Your task to perform on an android device: Open wifi settings Image 0: 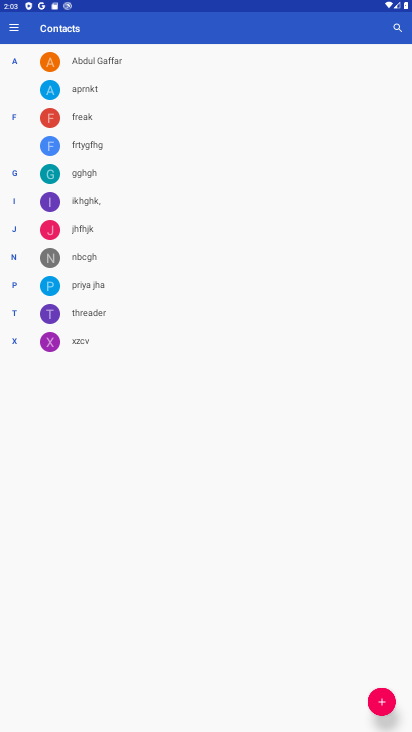
Step 0: press home button
Your task to perform on an android device: Open wifi settings Image 1: 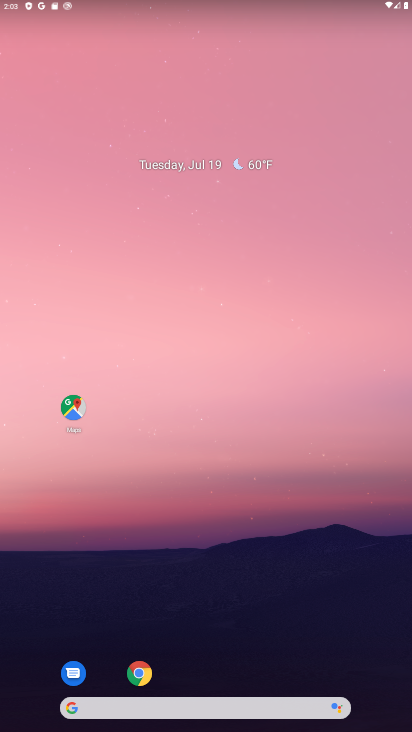
Step 1: drag from (356, 596) to (301, 7)
Your task to perform on an android device: Open wifi settings Image 2: 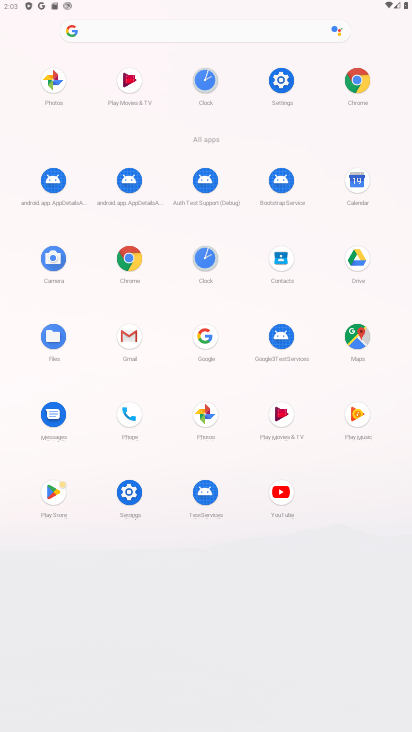
Step 2: click (290, 85)
Your task to perform on an android device: Open wifi settings Image 3: 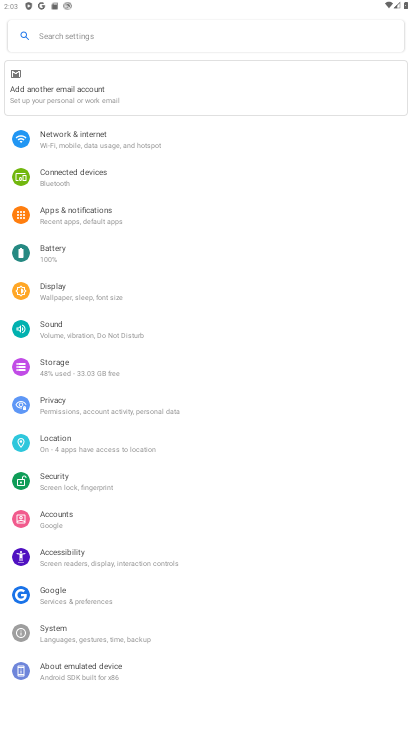
Step 3: click (252, 141)
Your task to perform on an android device: Open wifi settings Image 4: 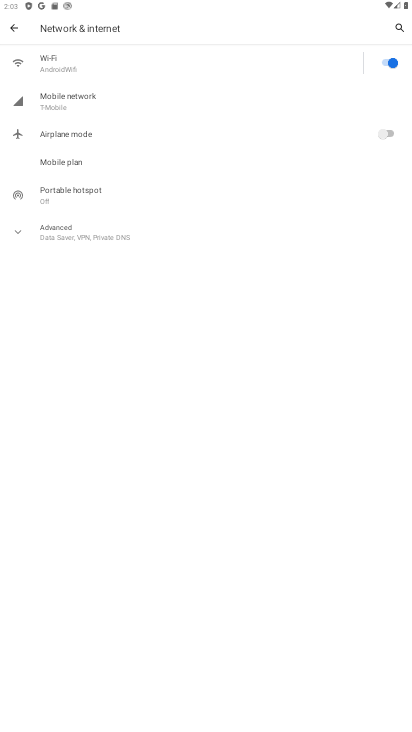
Step 4: task complete